Your task to perform on an android device: Go to ESPN.com Image 0: 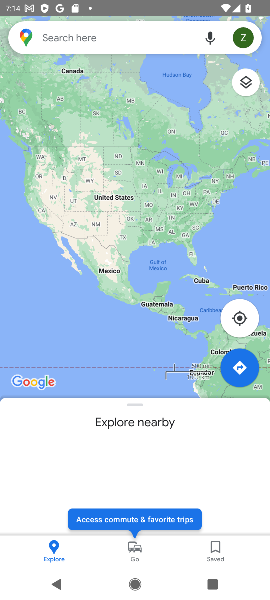
Step 0: press home button
Your task to perform on an android device: Go to ESPN.com Image 1: 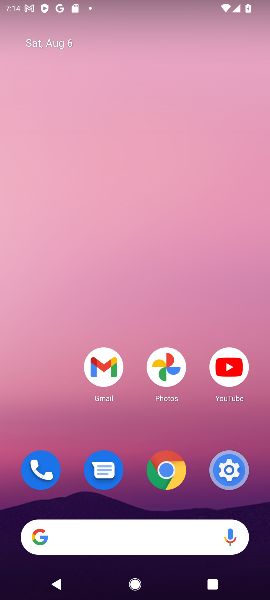
Step 1: drag from (199, 511) to (257, 73)
Your task to perform on an android device: Go to ESPN.com Image 2: 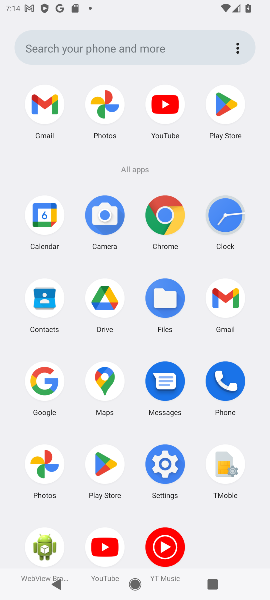
Step 2: click (174, 219)
Your task to perform on an android device: Go to ESPN.com Image 3: 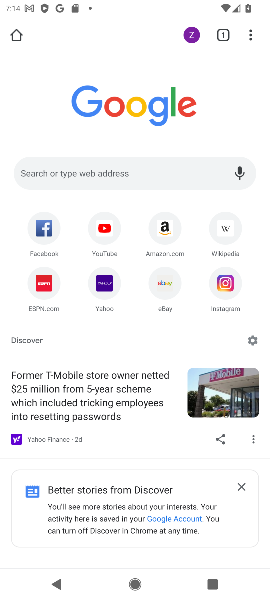
Step 3: click (37, 291)
Your task to perform on an android device: Go to ESPN.com Image 4: 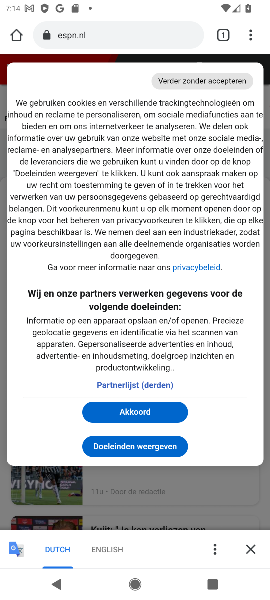
Step 4: task complete